Your task to perform on an android device: Go to CNN.com Image 0: 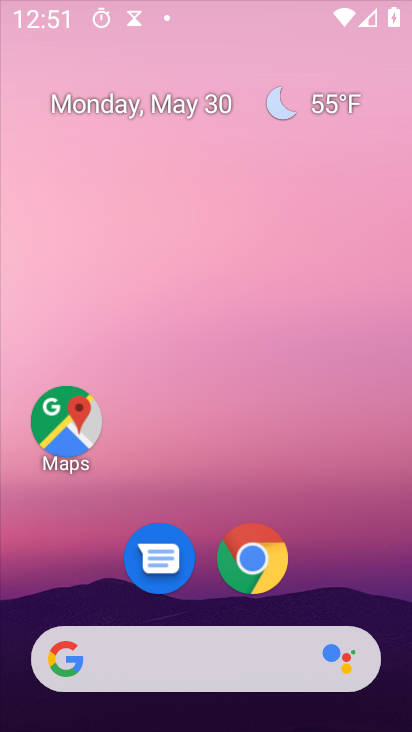
Step 0: drag from (393, 344) to (380, 2)
Your task to perform on an android device: Go to CNN.com Image 1: 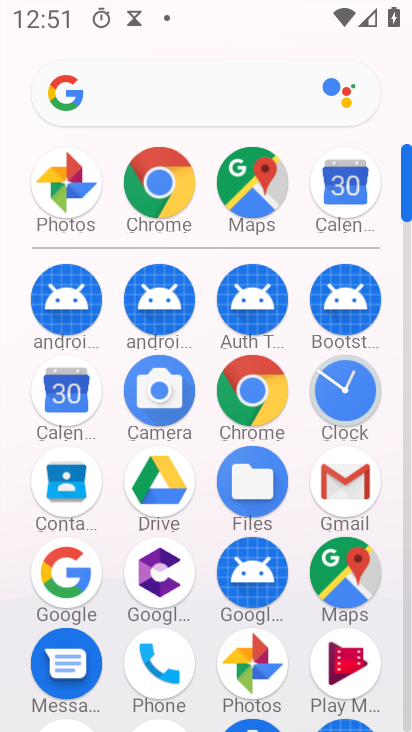
Step 1: drag from (385, 515) to (323, 206)
Your task to perform on an android device: Go to CNN.com Image 2: 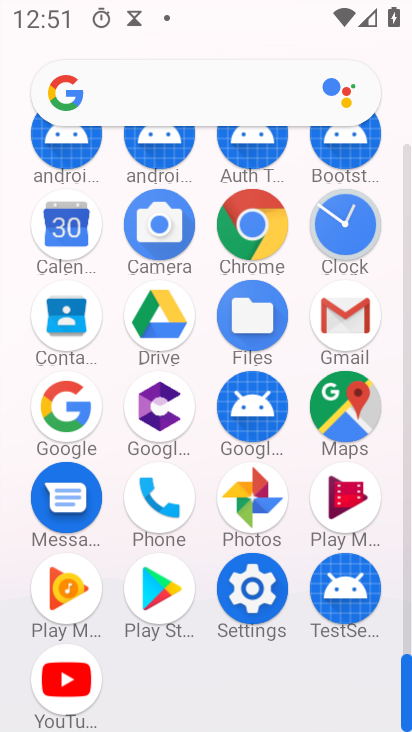
Step 2: click (249, 244)
Your task to perform on an android device: Go to CNN.com Image 3: 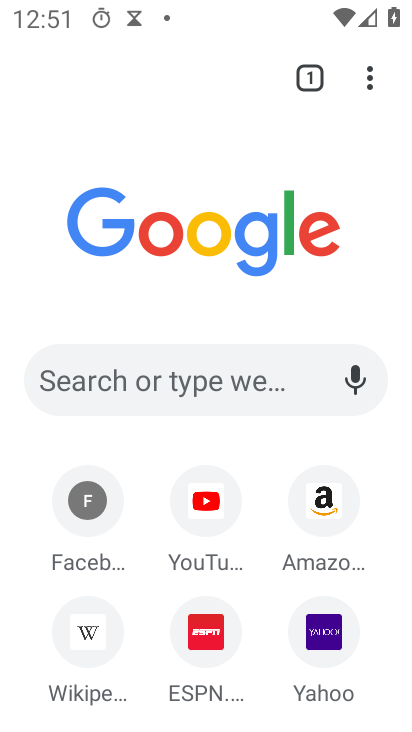
Step 3: click (187, 374)
Your task to perform on an android device: Go to CNN.com Image 4: 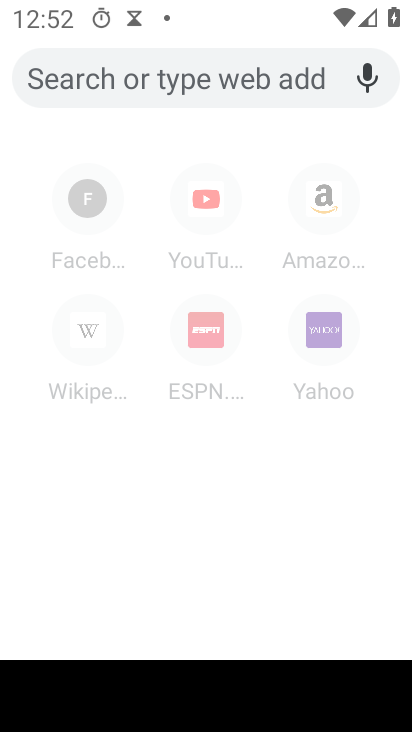
Step 4: type "cnn"
Your task to perform on an android device: Go to CNN.com Image 5: 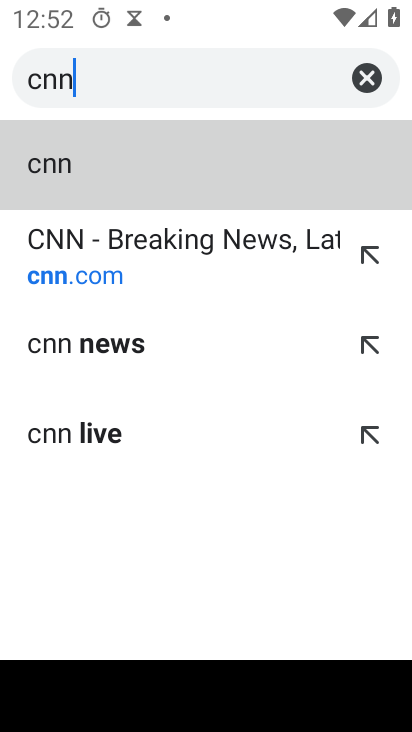
Step 5: click (75, 270)
Your task to perform on an android device: Go to CNN.com Image 6: 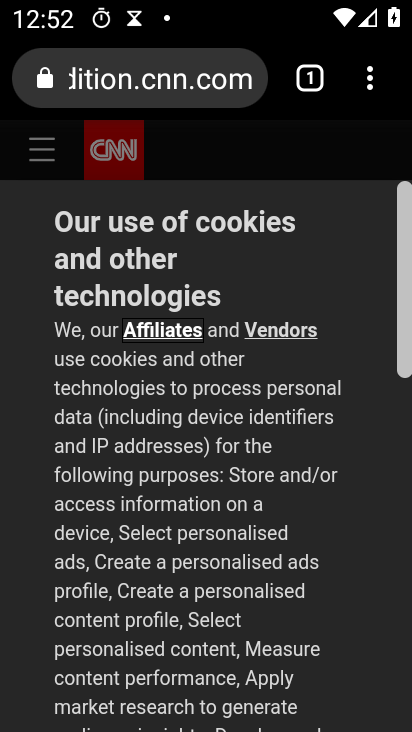
Step 6: task complete